Your task to perform on an android device: turn on priority inbox in the gmail app Image 0: 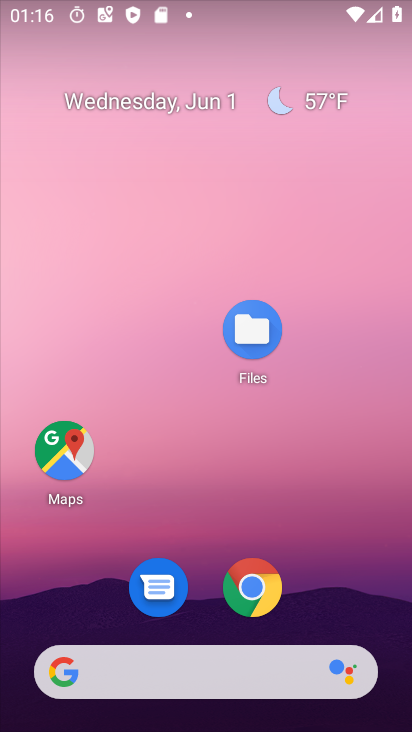
Step 0: press home button
Your task to perform on an android device: turn on priority inbox in the gmail app Image 1: 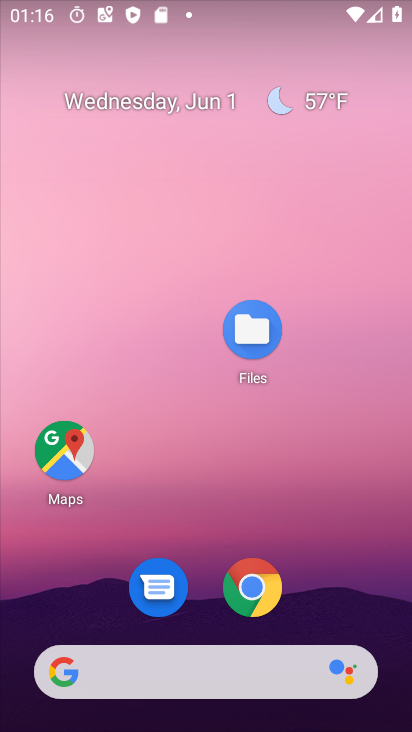
Step 1: drag from (368, 575) to (345, 47)
Your task to perform on an android device: turn on priority inbox in the gmail app Image 2: 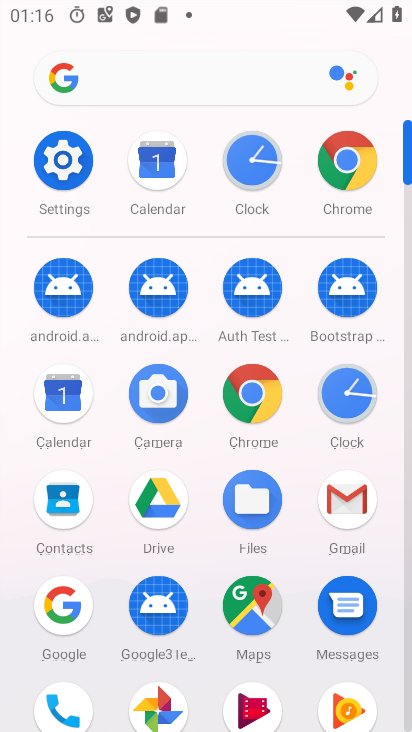
Step 2: click (352, 491)
Your task to perform on an android device: turn on priority inbox in the gmail app Image 3: 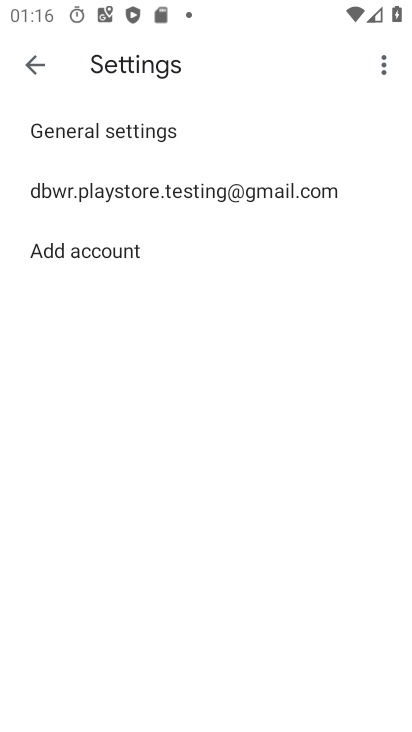
Step 3: click (227, 190)
Your task to perform on an android device: turn on priority inbox in the gmail app Image 4: 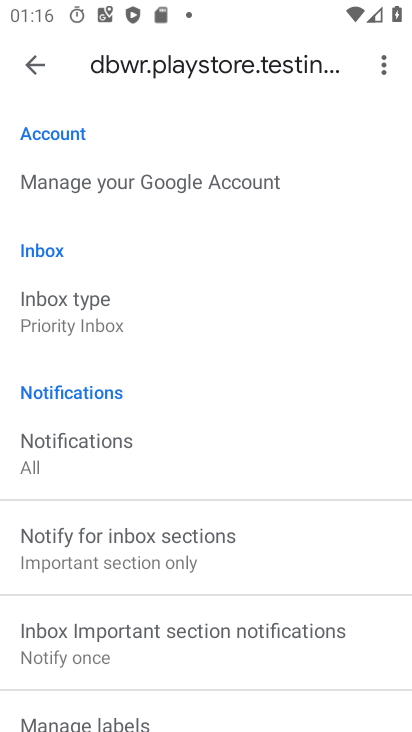
Step 4: click (89, 320)
Your task to perform on an android device: turn on priority inbox in the gmail app Image 5: 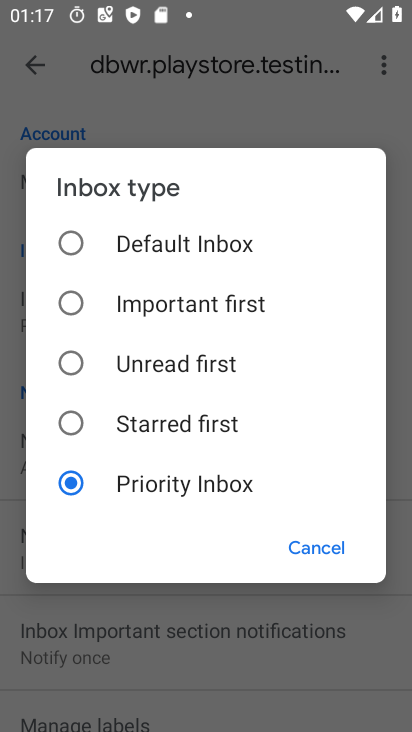
Step 5: click (244, 123)
Your task to perform on an android device: turn on priority inbox in the gmail app Image 6: 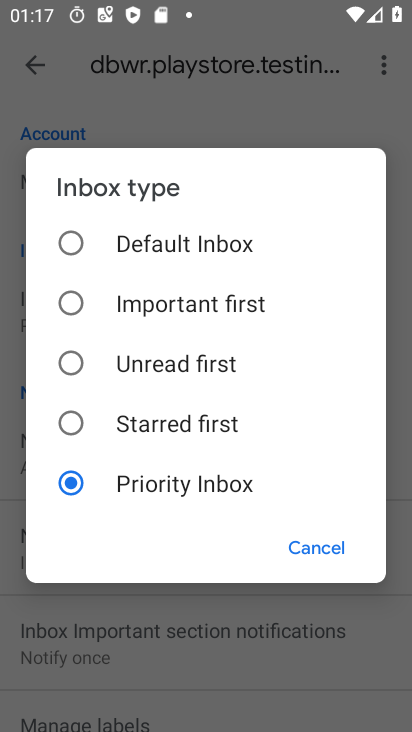
Step 6: task complete